Your task to perform on an android device: Search for logitech g pro on newegg, select the first entry, add it to the cart, then select checkout. Image 0: 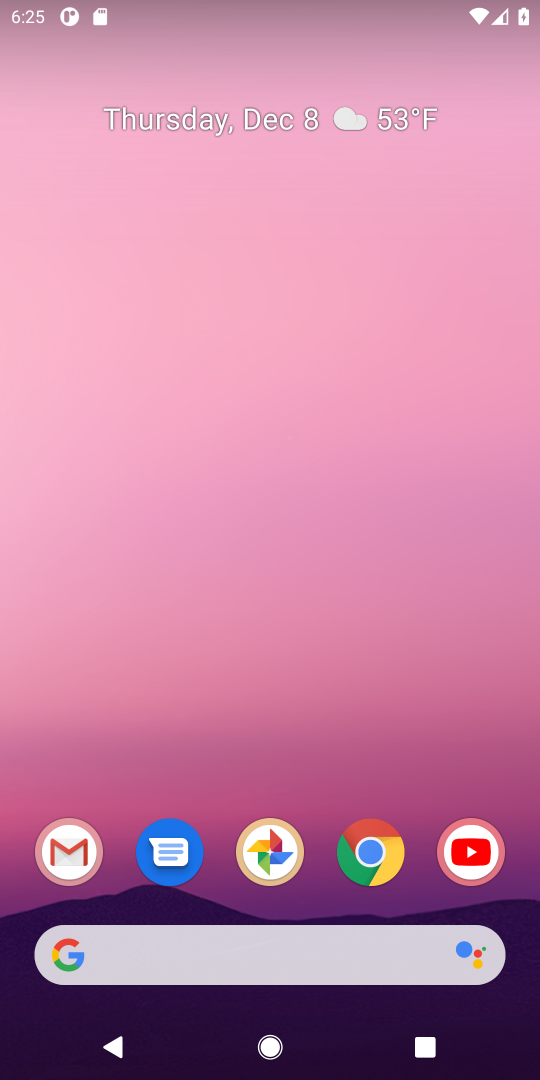
Step 0: click (313, 938)
Your task to perform on an android device: Search for logitech g pro on newegg, select the first entry, add it to the cart, then select checkout. Image 1: 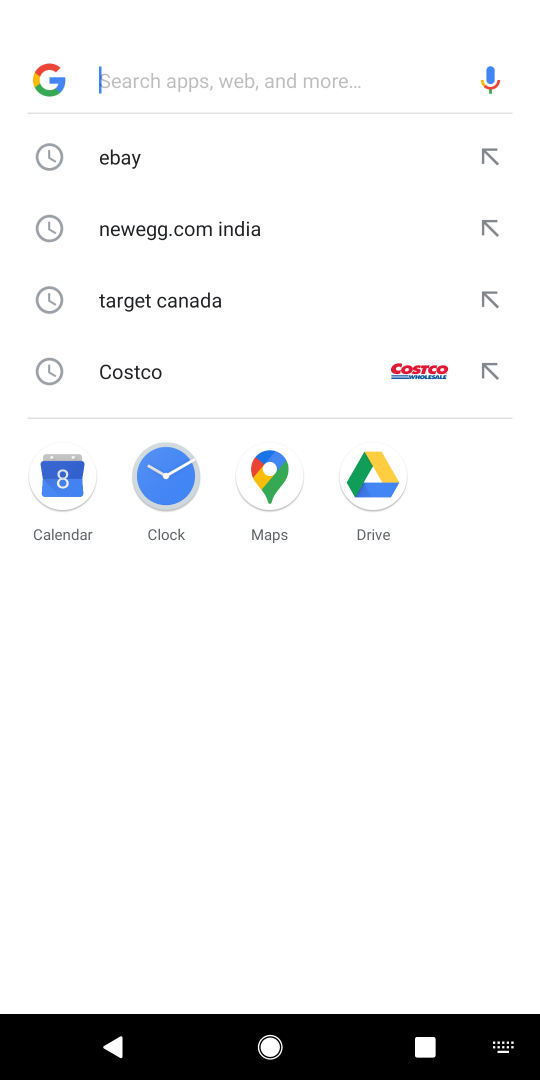
Step 1: type "newegg"
Your task to perform on an android device: Search for logitech g pro on newegg, select the first entry, add it to the cart, then select checkout. Image 2: 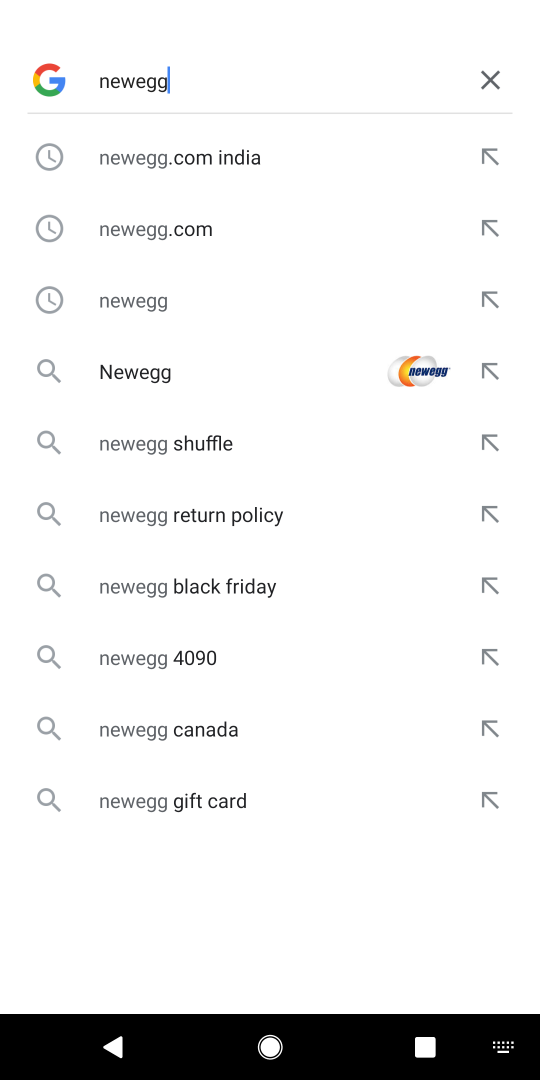
Step 2: click (235, 253)
Your task to perform on an android device: Search for logitech g pro on newegg, select the first entry, add it to the cart, then select checkout. Image 3: 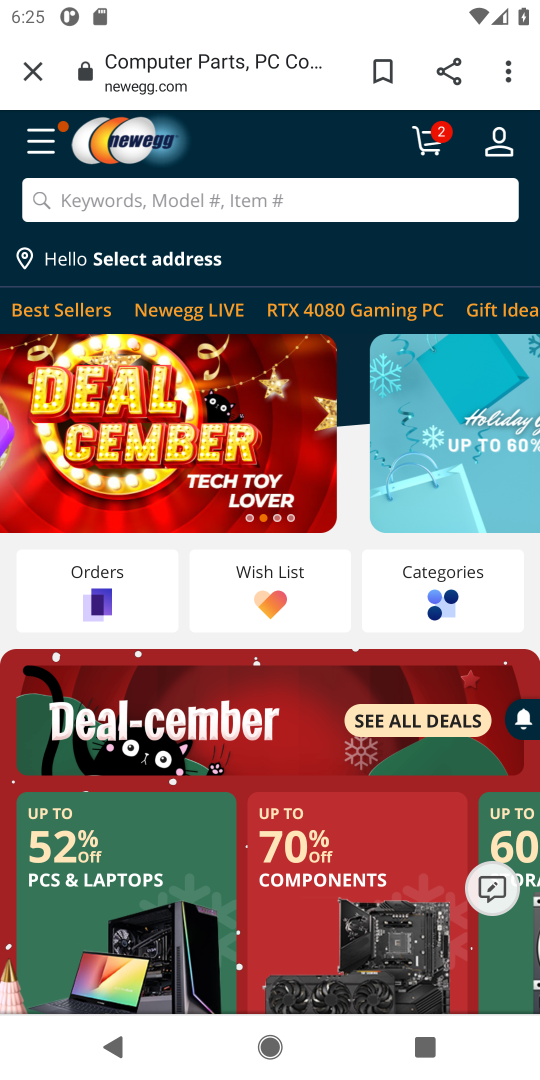
Step 3: click (210, 212)
Your task to perform on an android device: Search for logitech g pro on newegg, select the first entry, add it to the cart, then select checkout. Image 4: 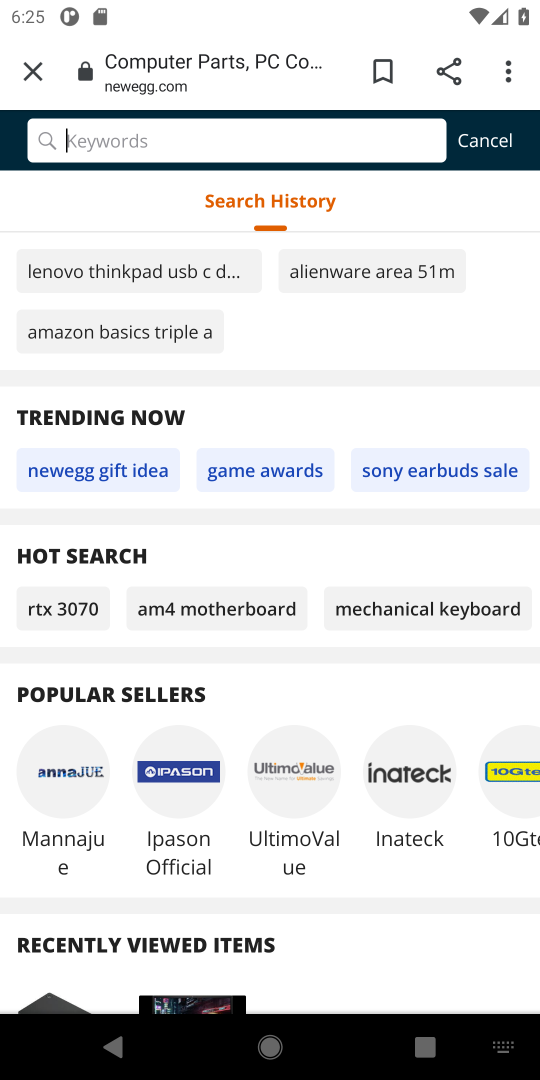
Step 4: type "logitech gpro"
Your task to perform on an android device: Search for logitech g pro on newegg, select the first entry, add it to the cart, then select checkout. Image 5: 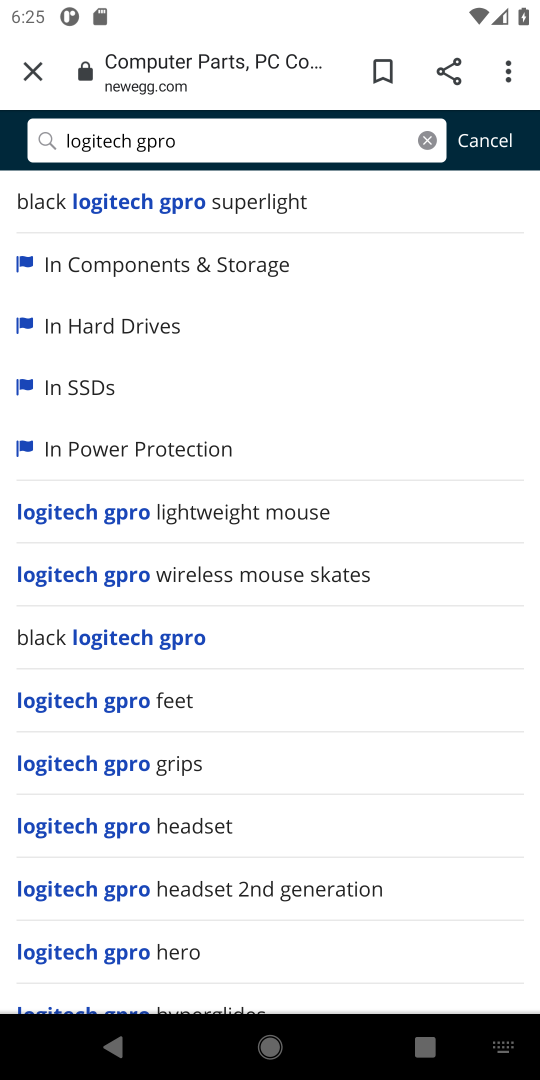
Step 5: click (282, 222)
Your task to perform on an android device: Search for logitech g pro on newegg, select the first entry, add it to the cart, then select checkout. Image 6: 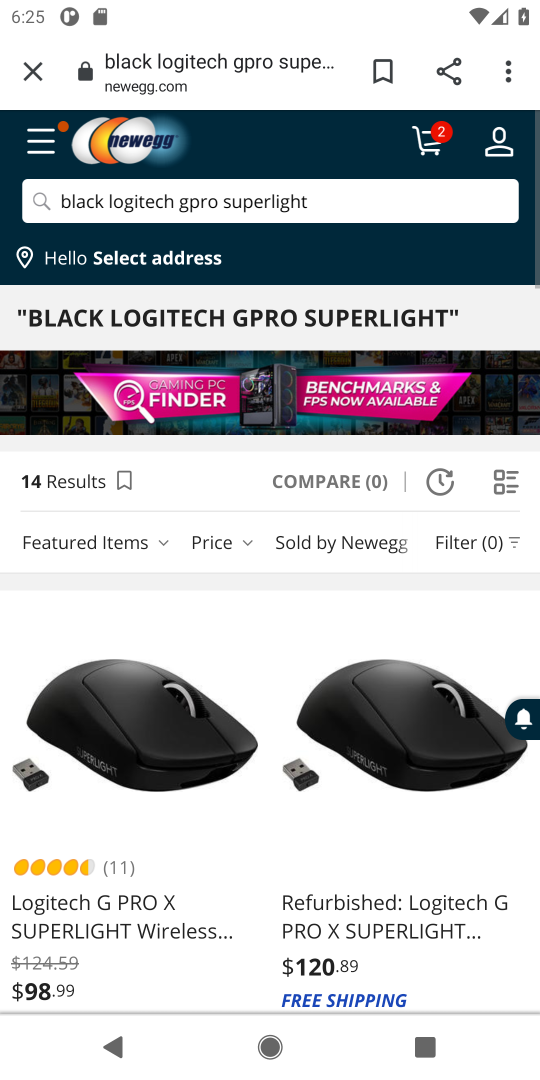
Step 6: click (94, 908)
Your task to perform on an android device: Search for logitech g pro on newegg, select the first entry, add it to the cart, then select checkout. Image 7: 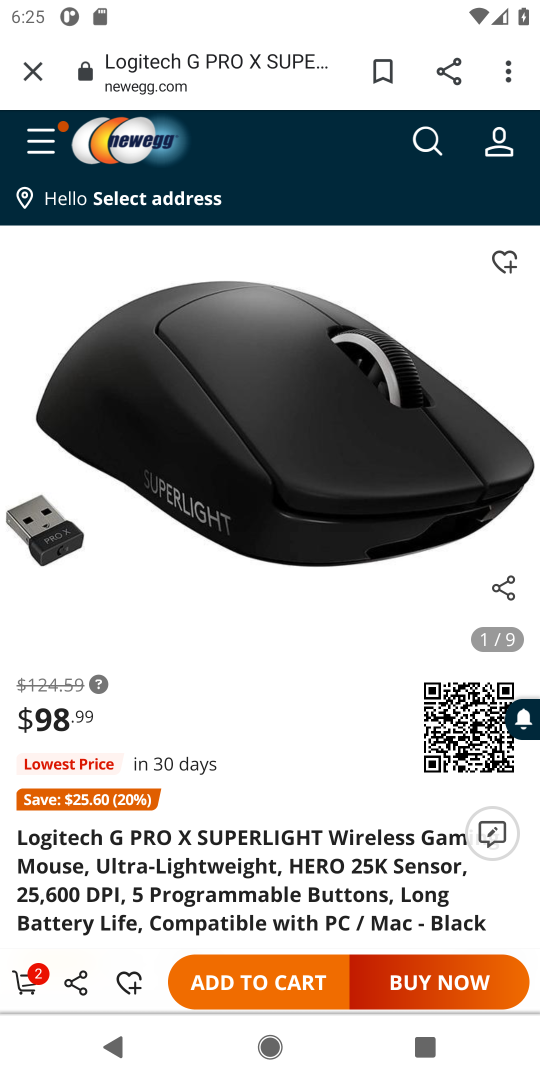
Step 7: click (263, 970)
Your task to perform on an android device: Search for logitech g pro on newegg, select the first entry, add it to the cart, then select checkout. Image 8: 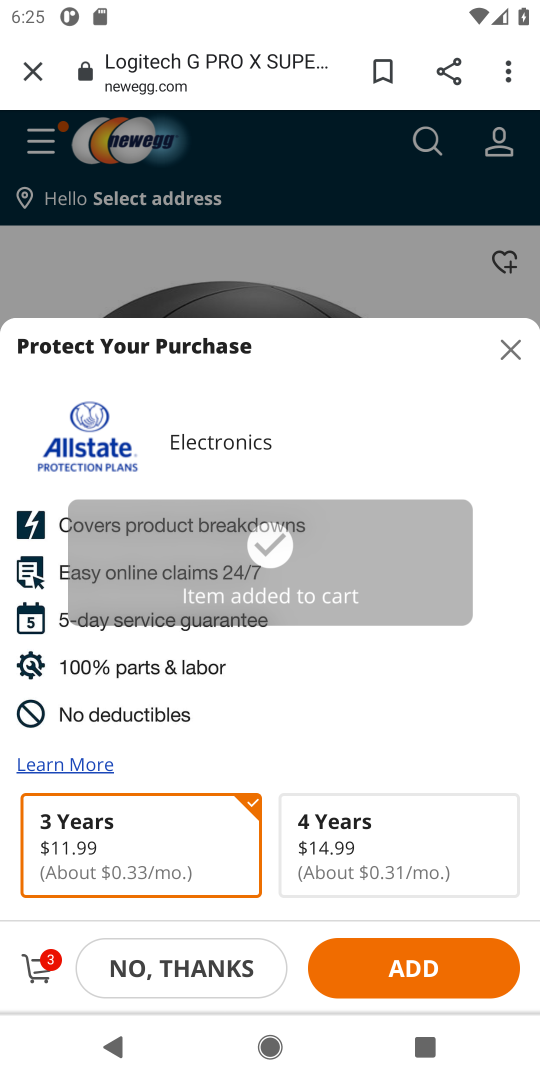
Step 8: task complete